Your task to perform on an android device: Check my gmail Image 0: 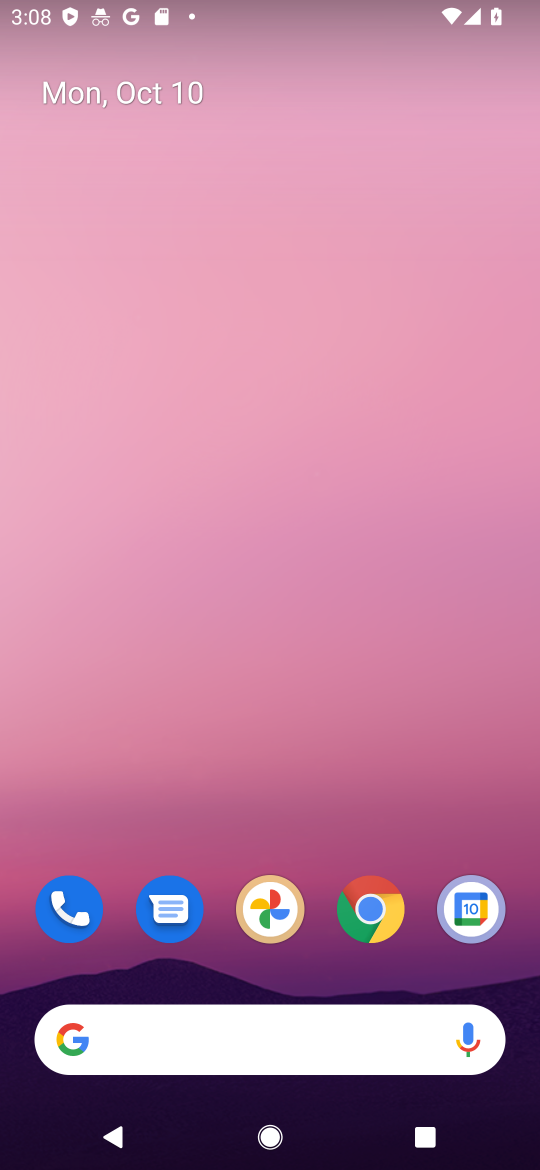
Step 0: drag from (314, 972) to (319, 260)
Your task to perform on an android device: Check my gmail Image 1: 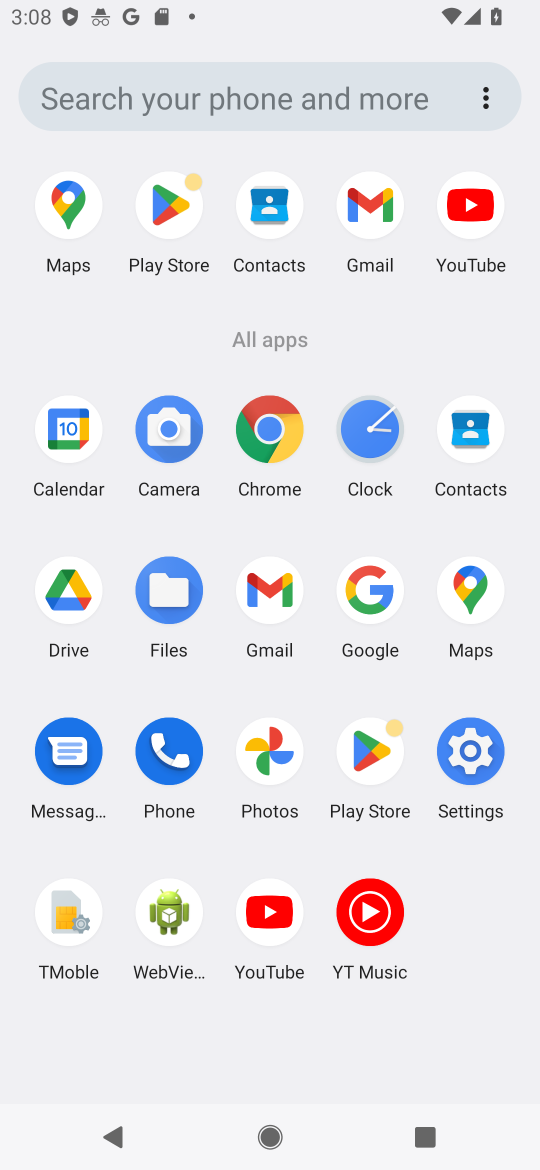
Step 1: click (264, 582)
Your task to perform on an android device: Check my gmail Image 2: 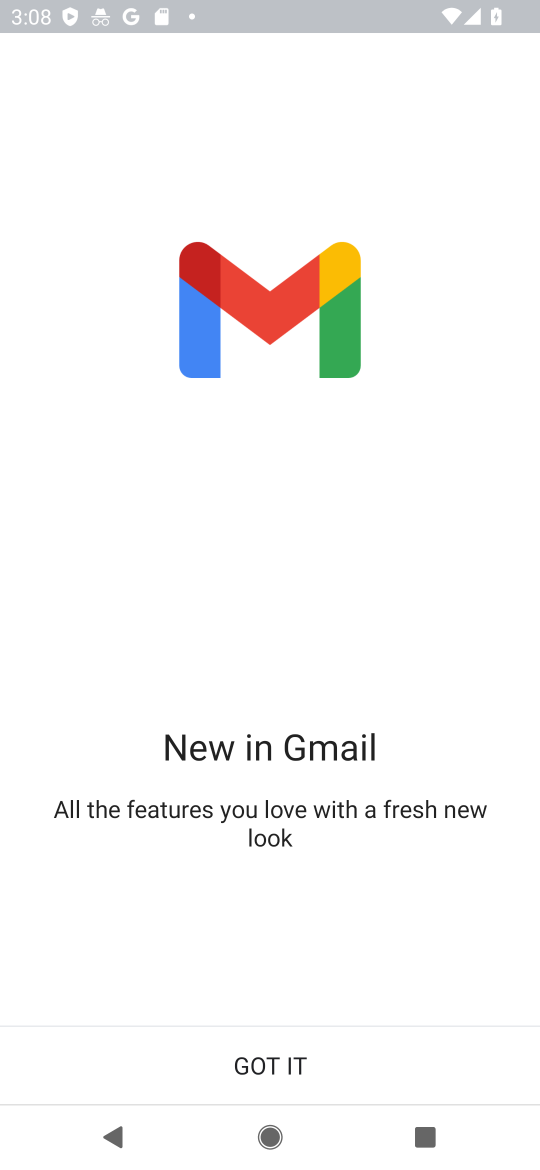
Step 2: click (263, 1076)
Your task to perform on an android device: Check my gmail Image 3: 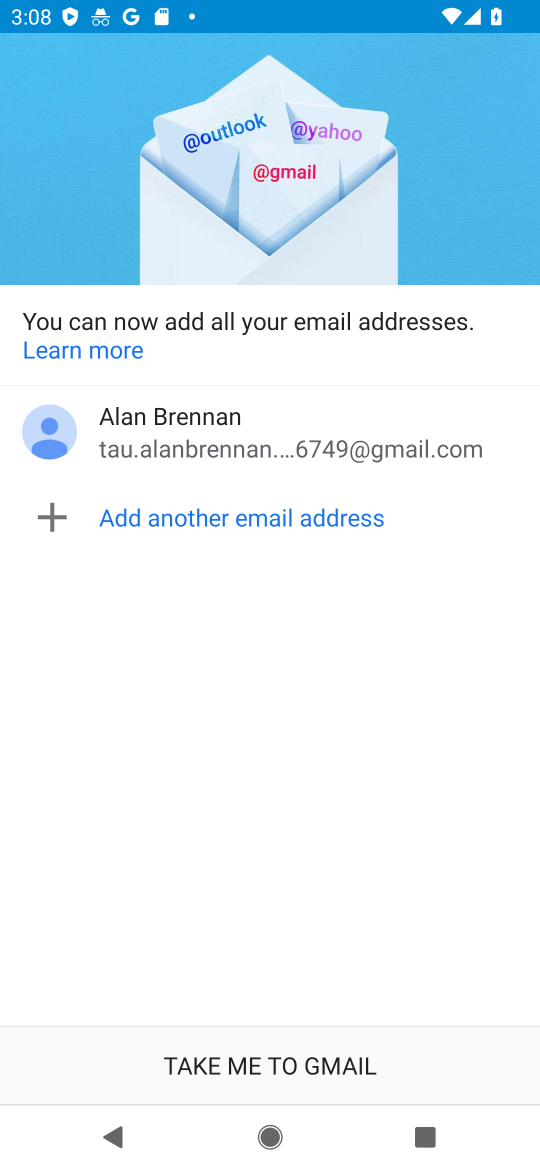
Step 3: click (266, 1051)
Your task to perform on an android device: Check my gmail Image 4: 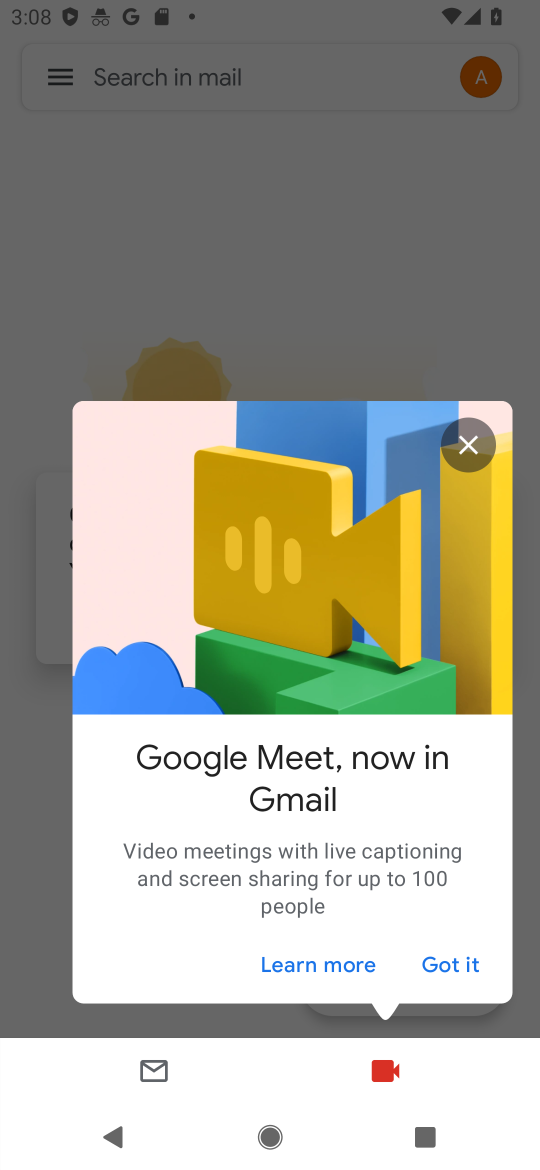
Step 4: click (449, 973)
Your task to perform on an android device: Check my gmail Image 5: 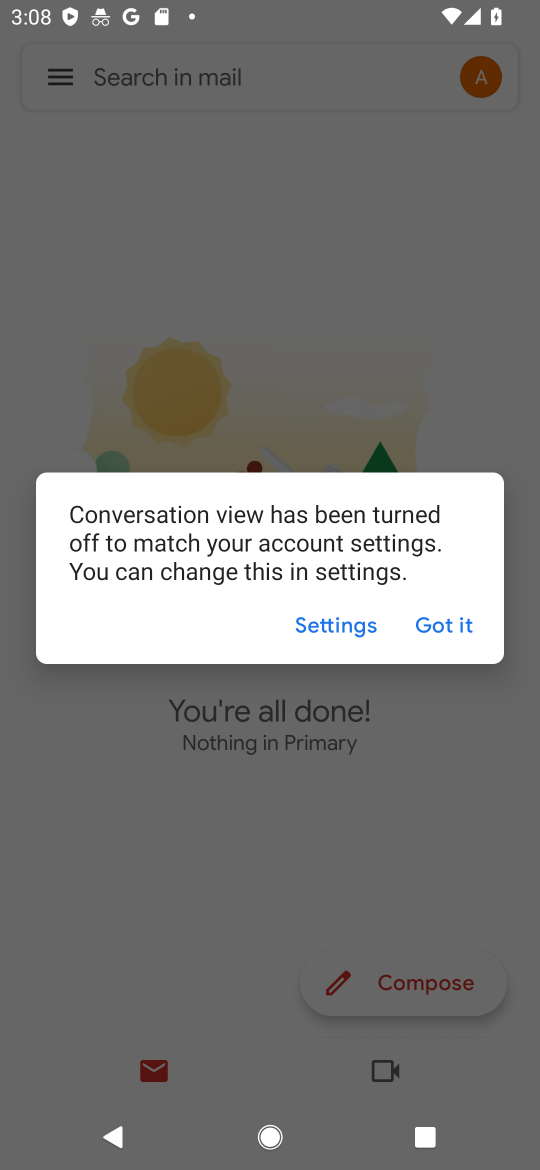
Step 5: click (433, 628)
Your task to perform on an android device: Check my gmail Image 6: 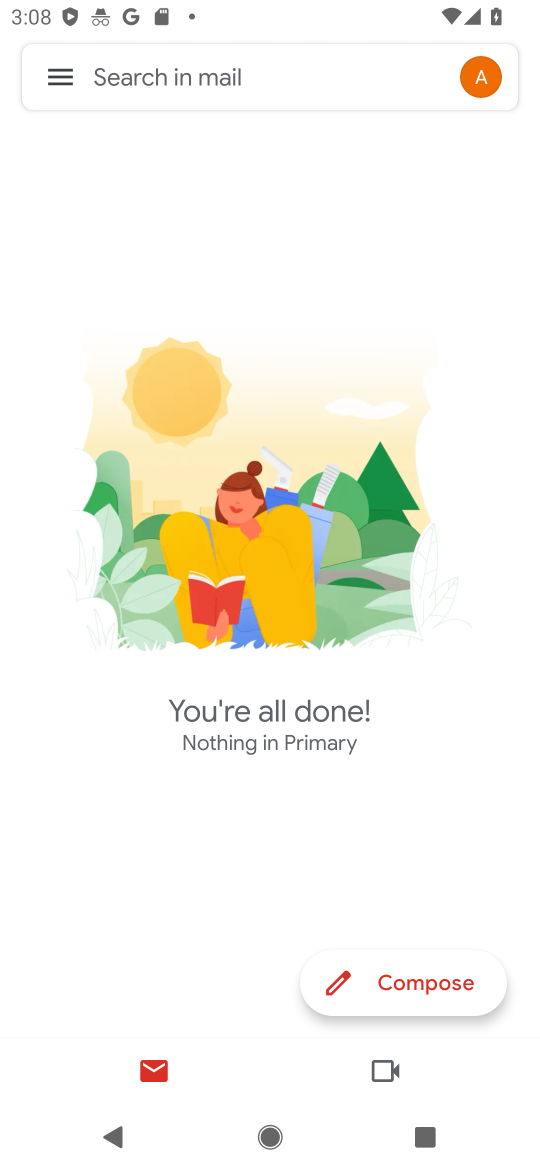
Step 6: click (60, 74)
Your task to perform on an android device: Check my gmail Image 7: 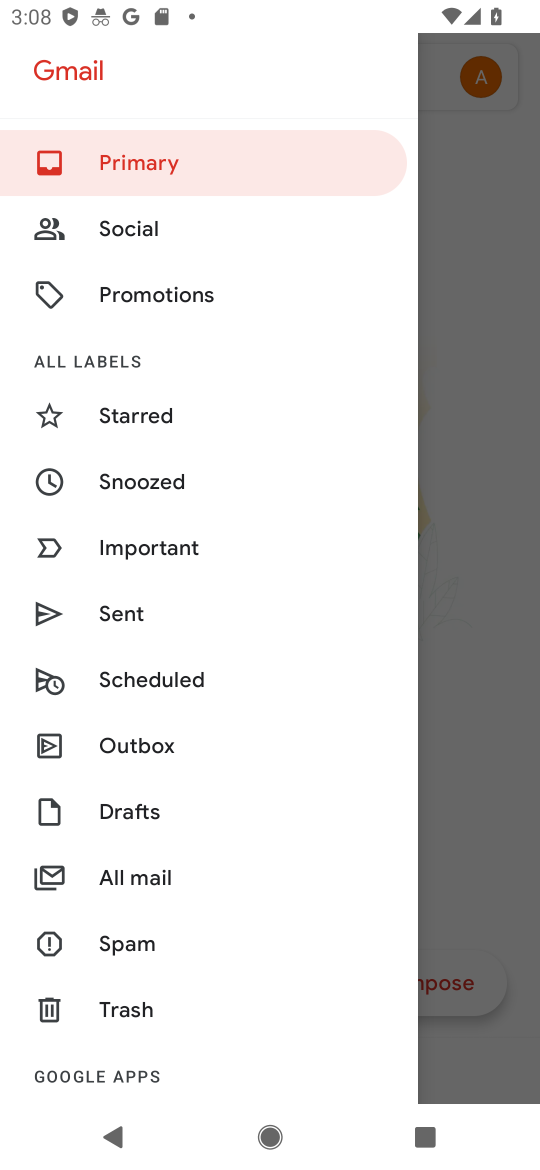
Step 7: click (135, 888)
Your task to perform on an android device: Check my gmail Image 8: 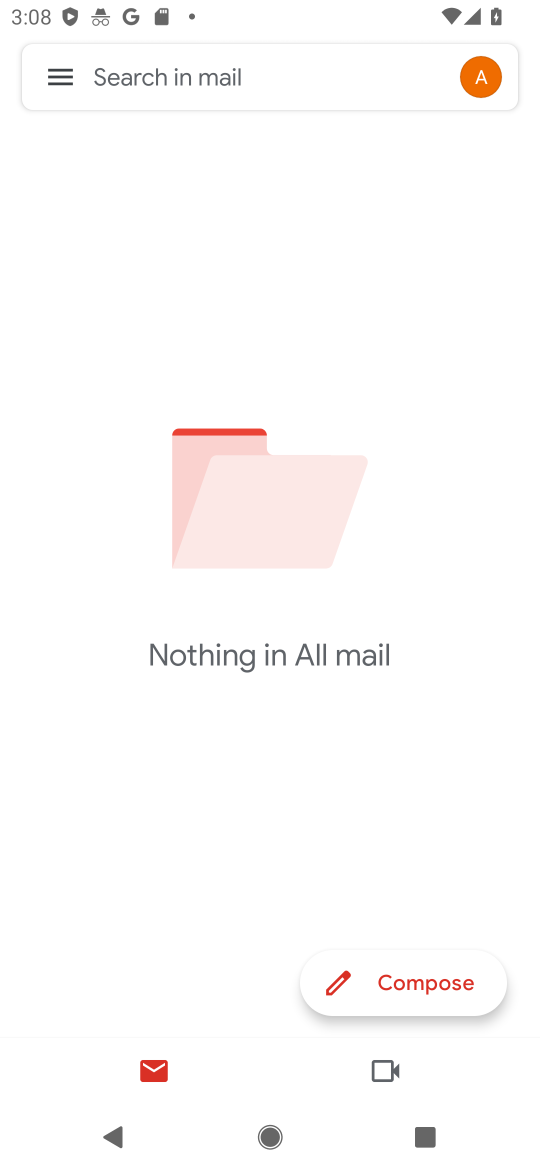
Step 8: task complete